Your task to perform on an android device: turn on bluetooth scan Image 0: 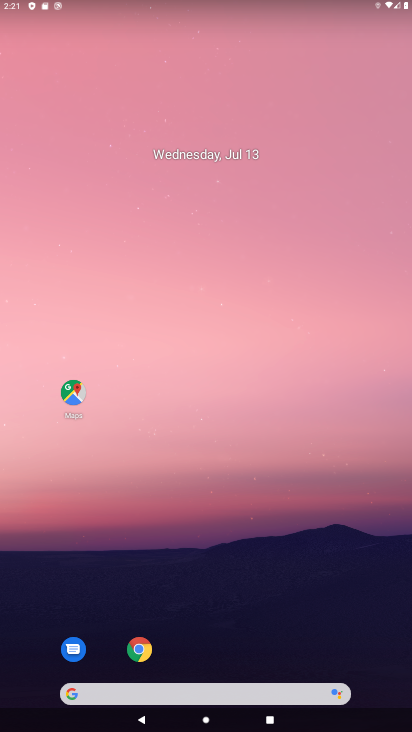
Step 0: drag from (241, 563) to (272, 89)
Your task to perform on an android device: turn on bluetooth scan Image 1: 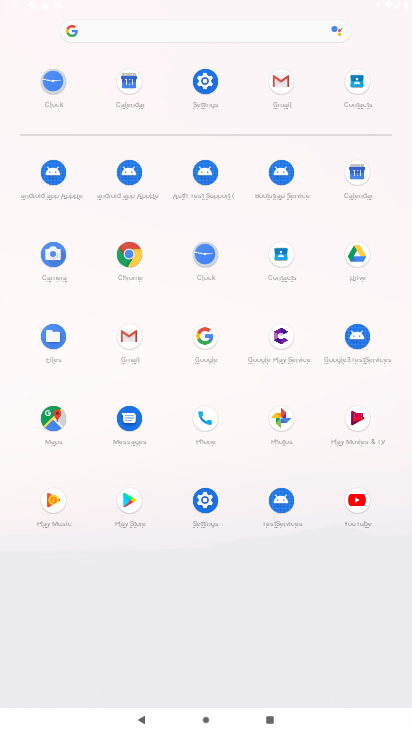
Step 1: click (205, 82)
Your task to perform on an android device: turn on bluetooth scan Image 2: 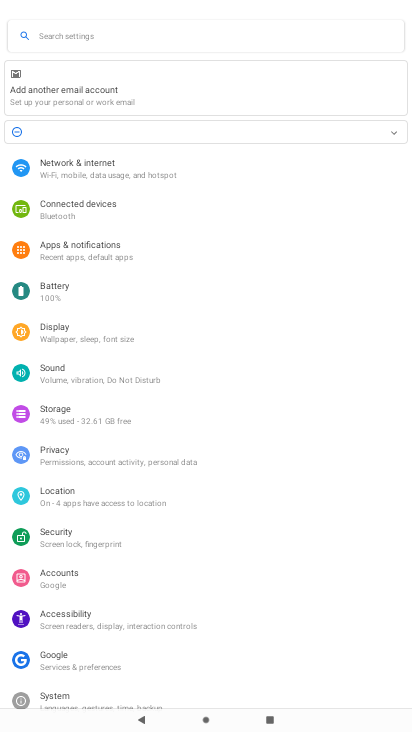
Step 2: click (60, 489)
Your task to perform on an android device: turn on bluetooth scan Image 3: 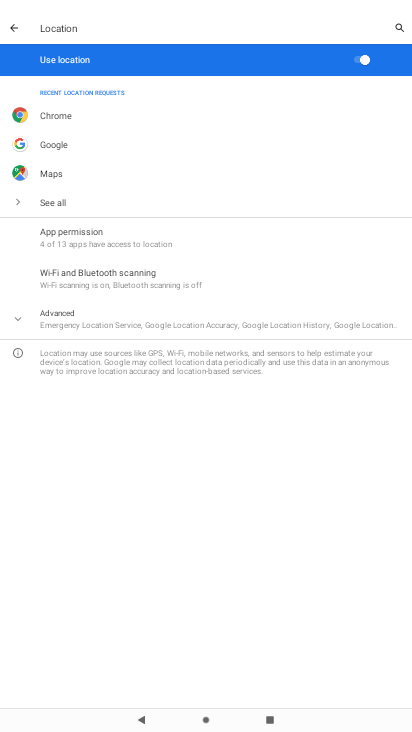
Step 3: click (22, 313)
Your task to perform on an android device: turn on bluetooth scan Image 4: 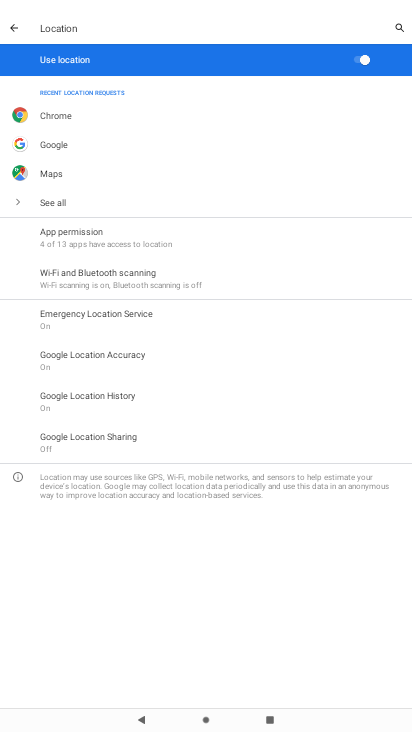
Step 4: click (71, 274)
Your task to perform on an android device: turn on bluetooth scan Image 5: 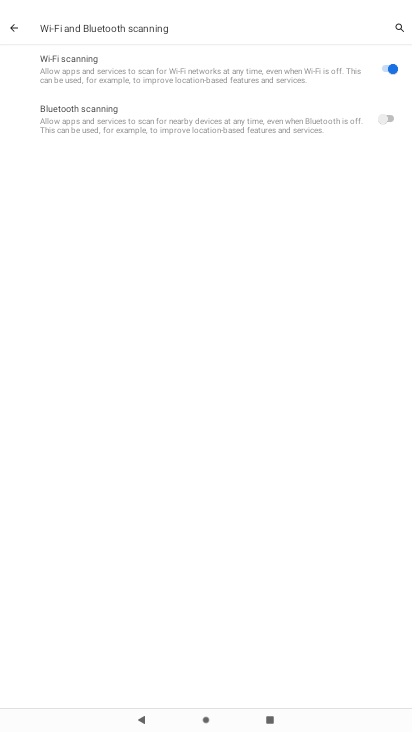
Step 5: click (385, 120)
Your task to perform on an android device: turn on bluetooth scan Image 6: 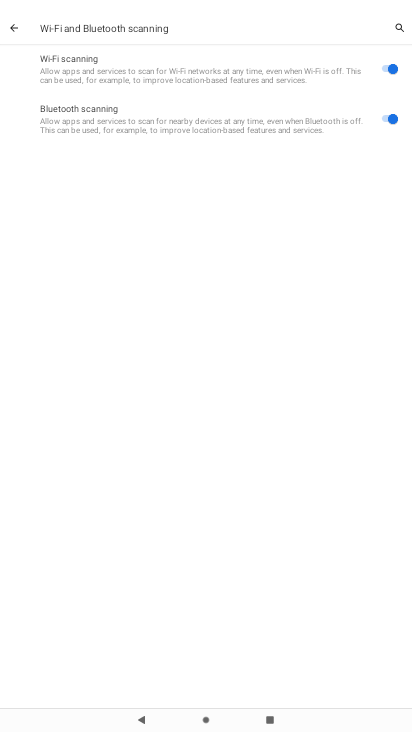
Step 6: task complete